Your task to perform on an android device: add a contact Image 0: 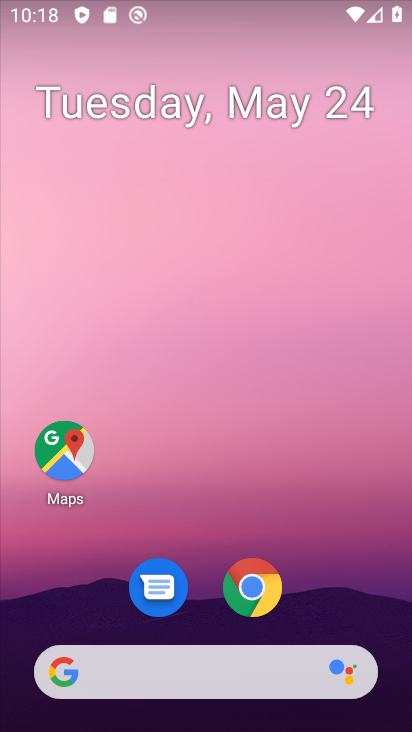
Step 0: drag from (345, 576) to (308, 136)
Your task to perform on an android device: add a contact Image 1: 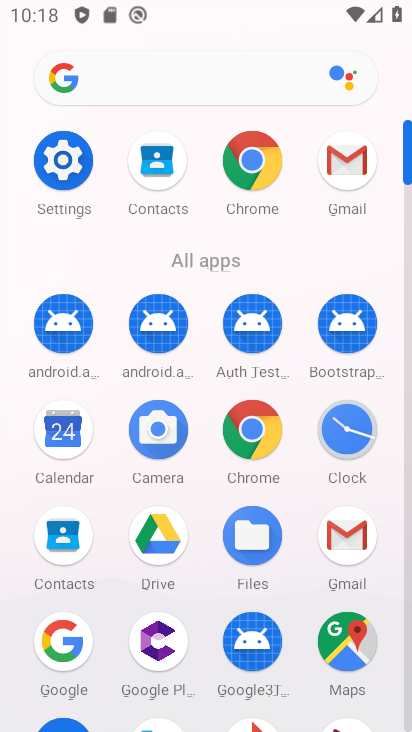
Step 1: drag from (341, 591) to (338, 260)
Your task to perform on an android device: add a contact Image 2: 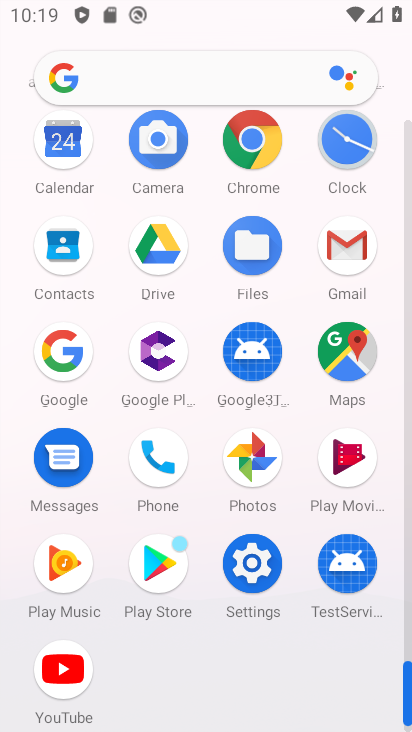
Step 2: click (77, 272)
Your task to perform on an android device: add a contact Image 3: 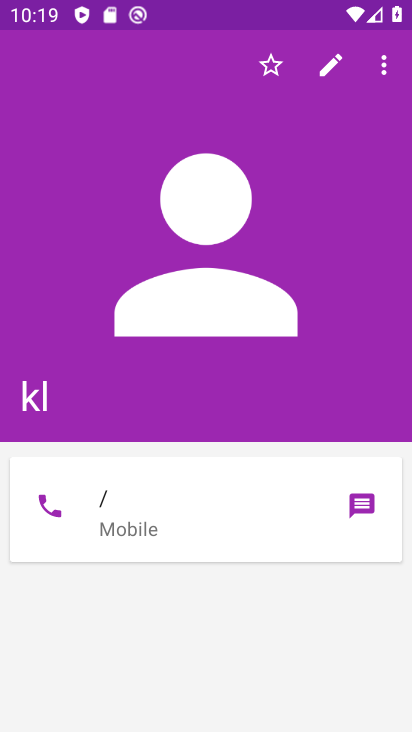
Step 3: click (70, 268)
Your task to perform on an android device: add a contact Image 4: 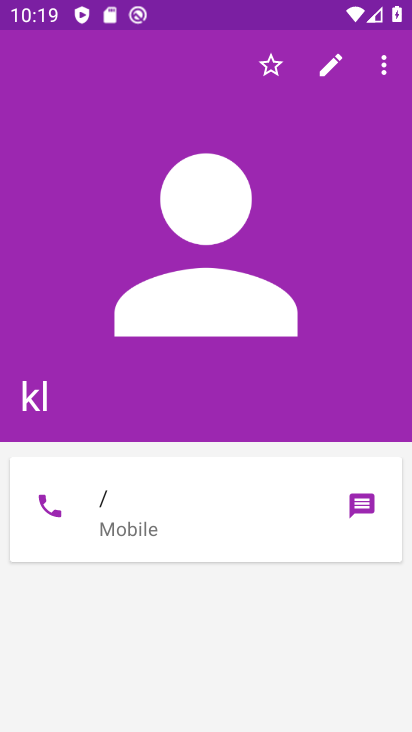
Step 4: press back button
Your task to perform on an android device: add a contact Image 5: 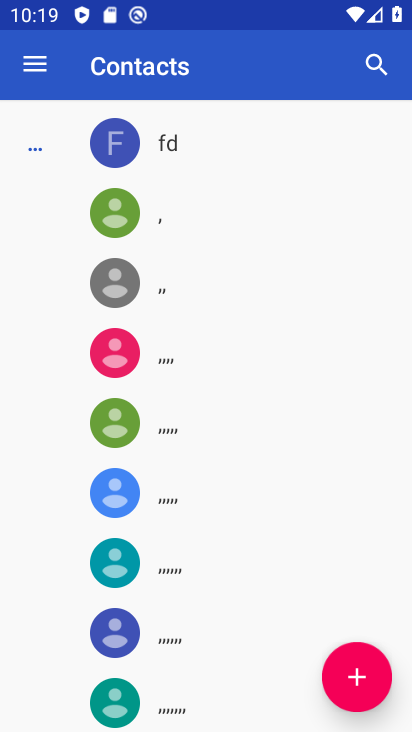
Step 5: click (359, 671)
Your task to perform on an android device: add a contact Image 6: 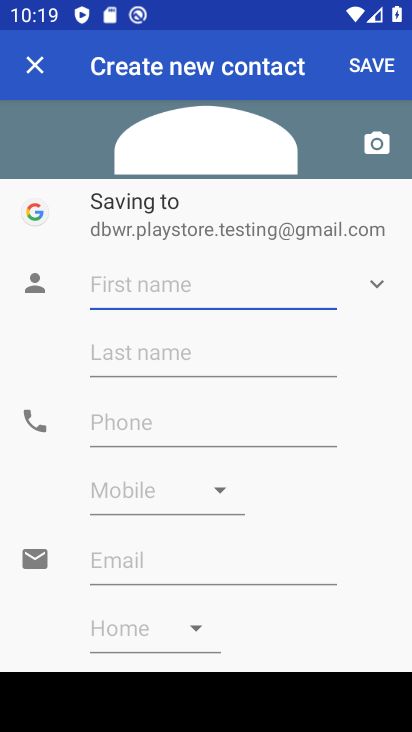
Step 6: click (387, 433)
Your task to perform on an android device: add a contact Image 7: 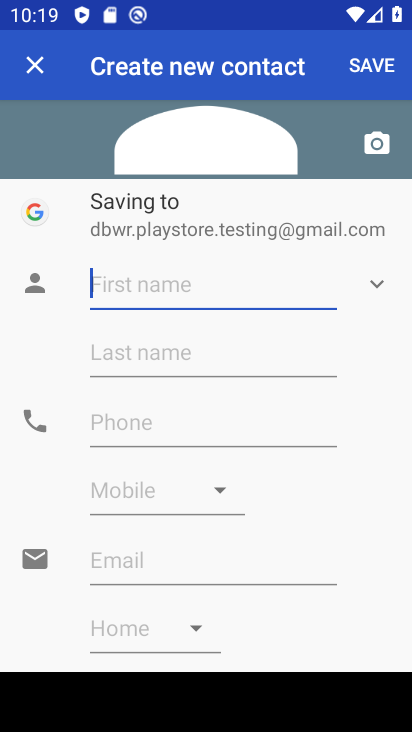
Step 7: type "eee"
Your task to perform on an android device: add a contact Image 8: 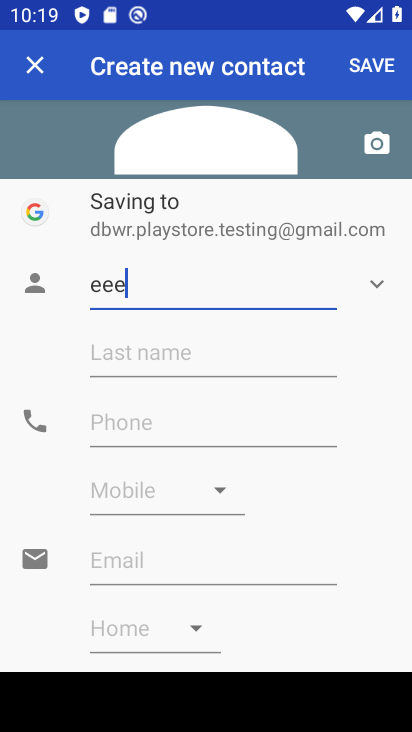
Step 8: type ""
Your task to perform on an android device: add a contact Image 9: 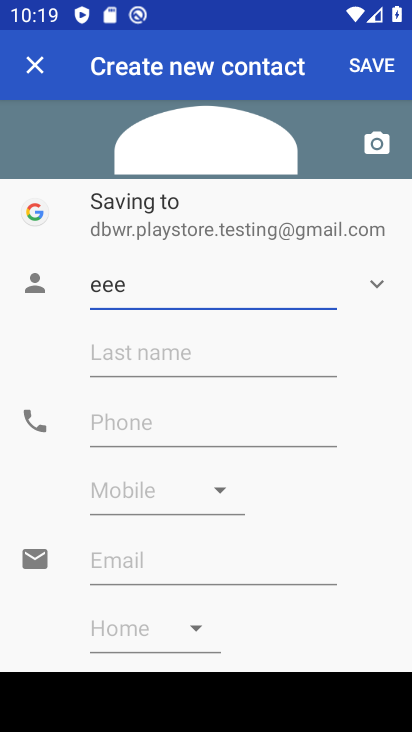
Step 9: click (157, 424)
Your task to perform on an android device: add a contact Image 10: 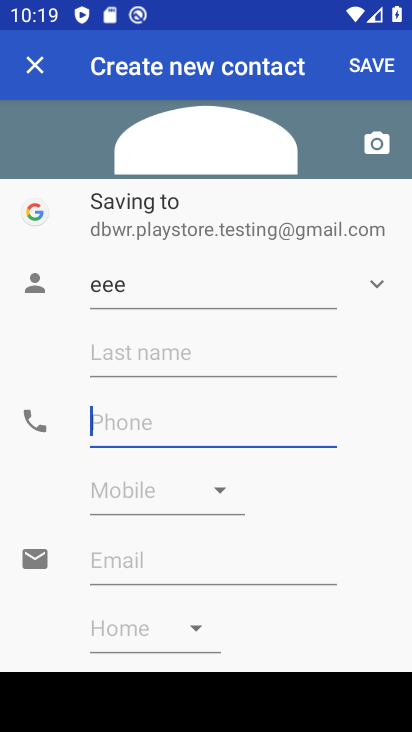
Step 10: type "--00"
Your task to perform on an android device: add a contact Image 11: 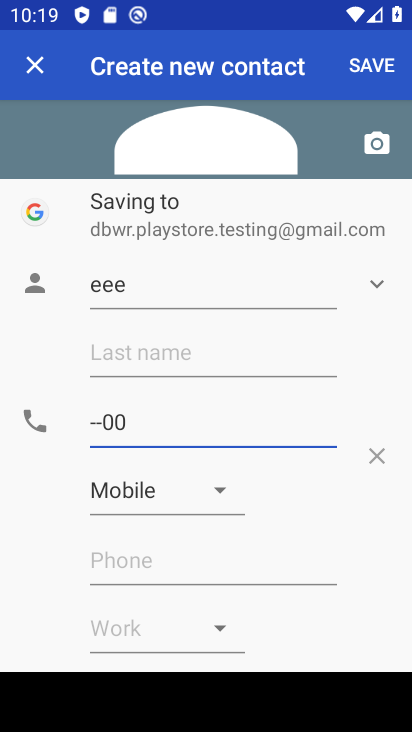
Step 11: click (348, 61)
Your task to perform on an android device: add a contact Image 12: 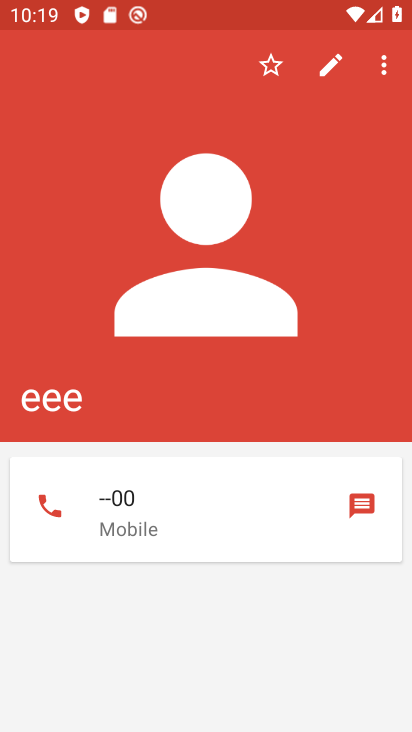
Step 12: task complete